Your task to perform on an android device: Open Maps and search for coffee Image 0: 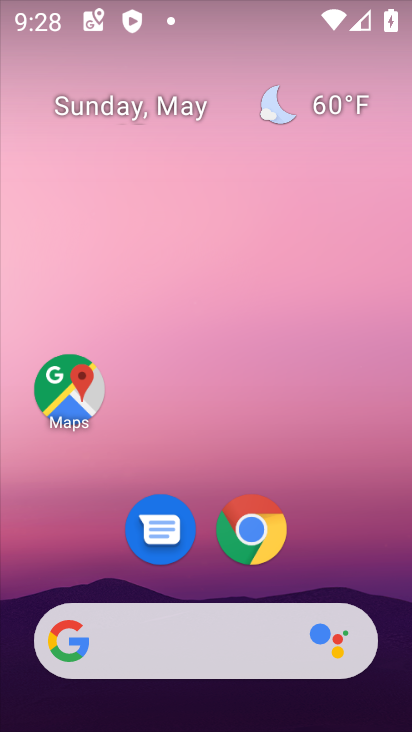
Step 0: drag from (384, 576) to (374, 128)
Your task to perform on an android device: Open Maps and search for coffee Image 1: 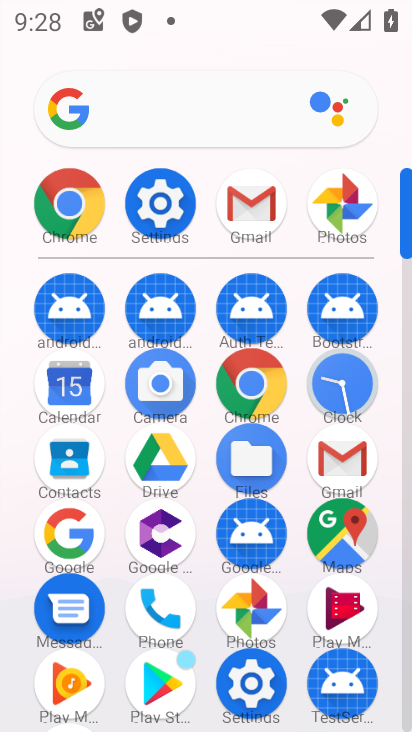
Step 1: click (342, 531)
Your task to perform on an android device: Open Maps and search for coffee Image 2: 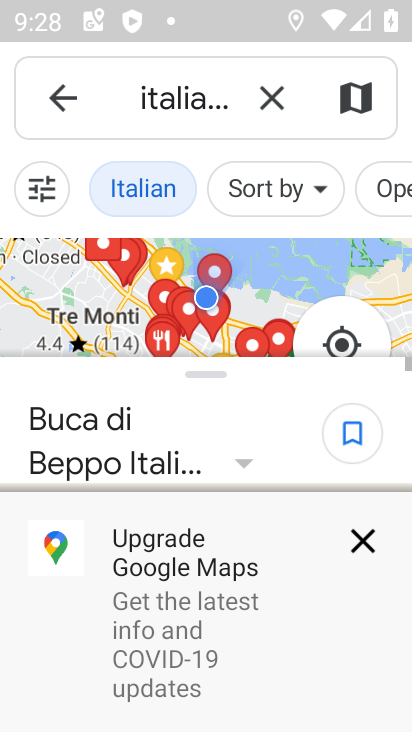
Step 2: click (202, 92)
Your task to perform on an android device: Open Maps and search for coffee Image 3: 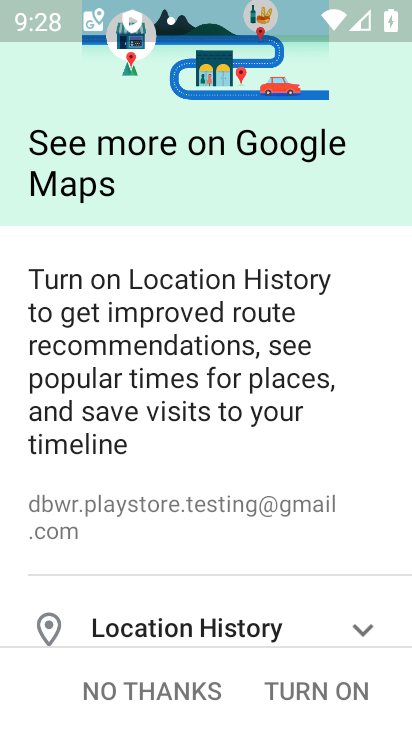
Step 3: drag from (378, 493) to (377, 187)
Your task to perform on an android device: Open Maps and search for coffee Image 4: 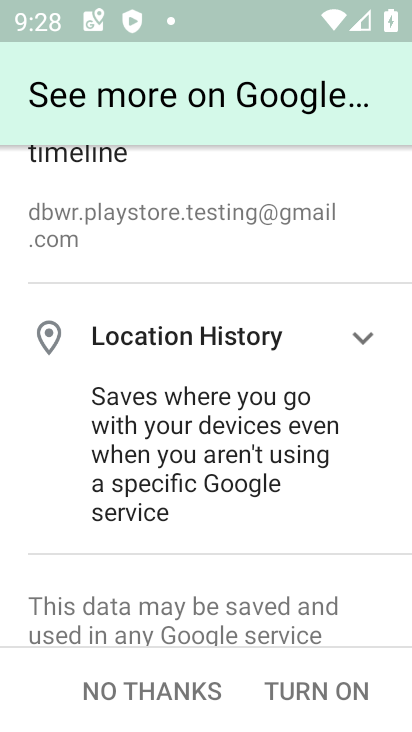
Step 4: press back button
Your task to perform on an android device: Open Maps and search for coffee Image 5: 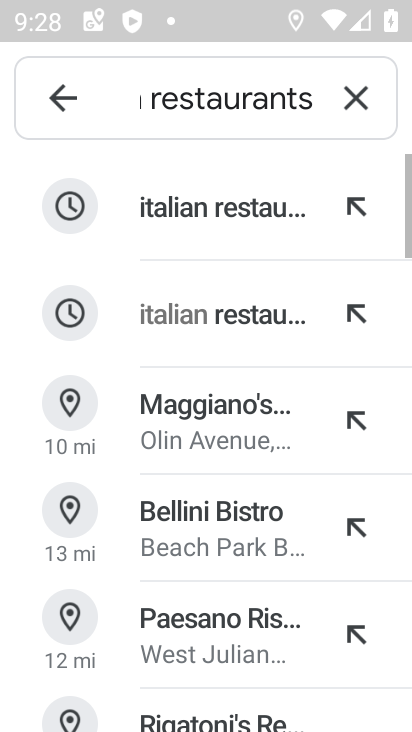
Step 5: click (360, 109)
Your task to perform on an android device: Open Maps and search for coffee Image 6: 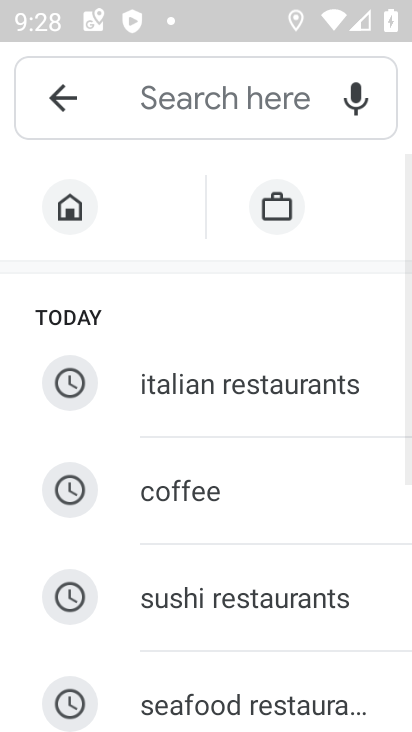
Step 6: click (151, 105)
Your task to perform on an android device: Open Maps and search for coffee Image 7: 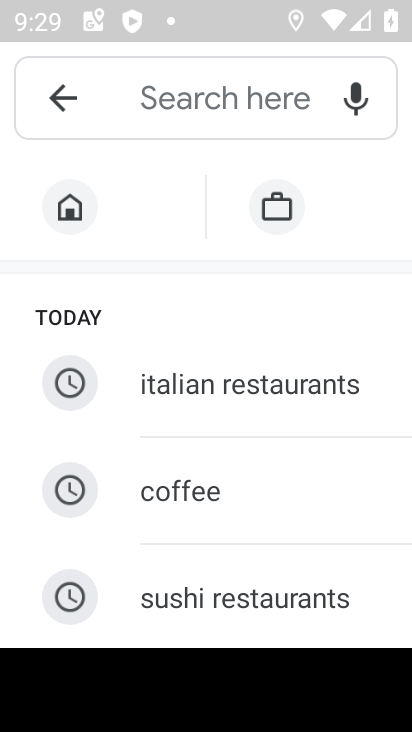
Step 7: type "coffee"
Your task to perform on an android device: Open Maps and search for coffee Image 8: 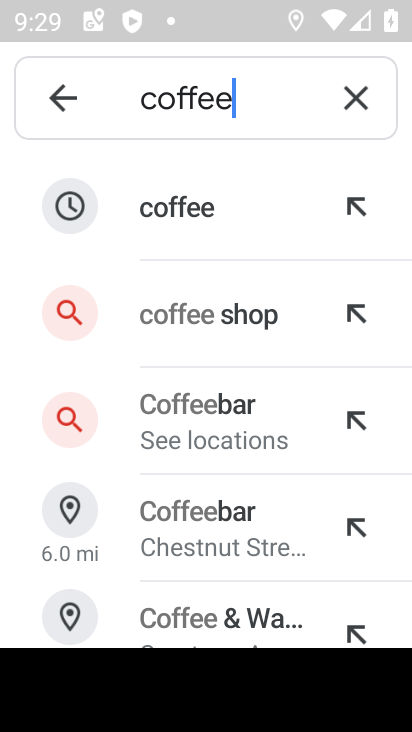
Step 8: click (199, 226)
Your task to perform on an android device: Open Maps and search for coffee Image 9: 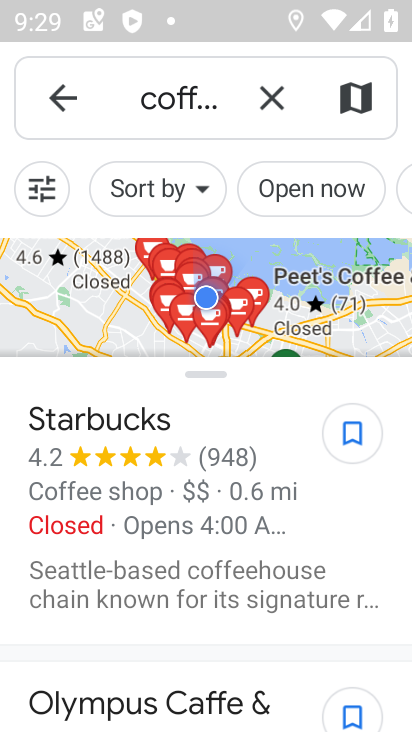
Step 9: task complete